Your task to perform on an android device: Open location settings Image 0: 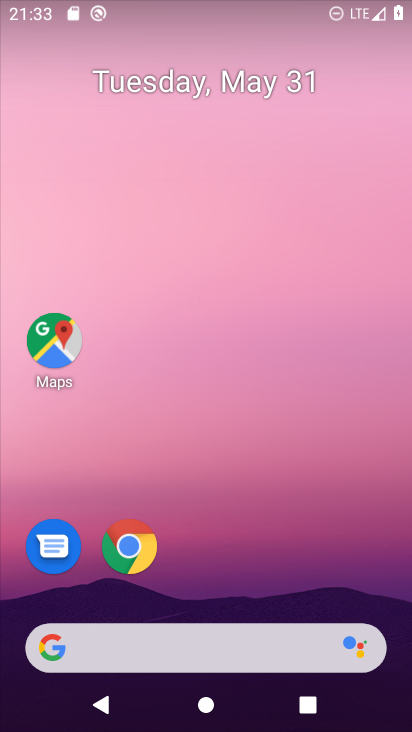
Step 0: drag from (385, 676) to (365, 114)
Your task to perform on an android device: Open location settings Image 1: 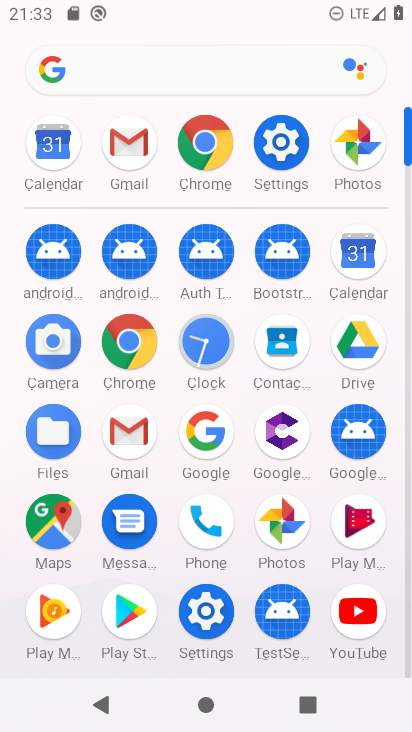
Step 1: click (269, 138)
Your task to perform on an android device: Open location settings Image 2: 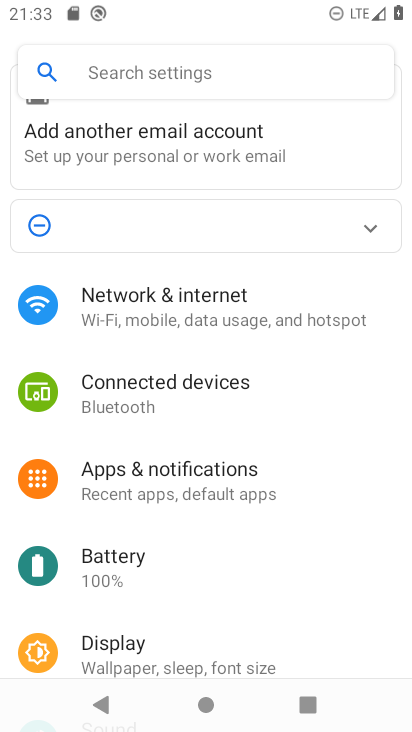
Step 2: drag from (229, 611) to (251, 227)
Your task to perform on an android device: Open location settings Image 3: 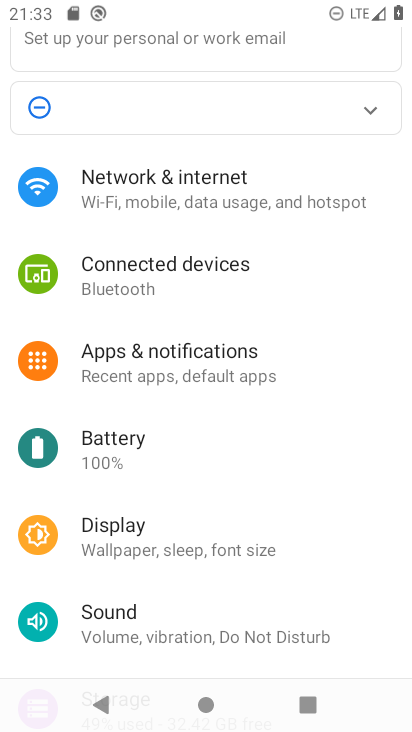
Step 3: drag from (256, 573) to (257, 204)
Your task to perform on an android device: Open location settings Image 4: 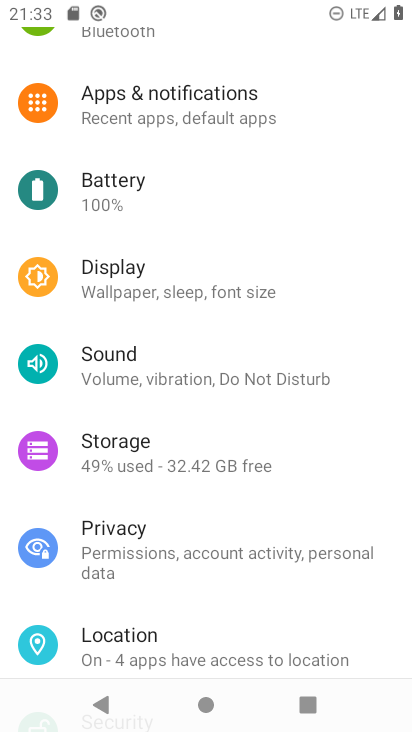
Step 4: click (86, 641)
Your task to perform on an android device: Open location settings Image 5: 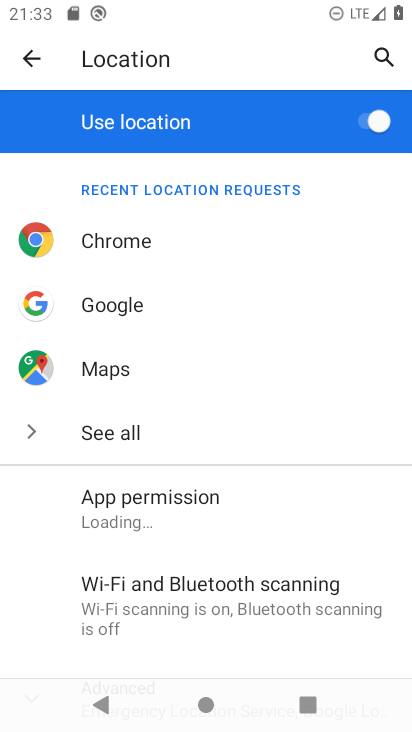
Step 5: drag from (296, 645) to (301, 268)
Your task to perform on an android device: Open location settings Image 6: 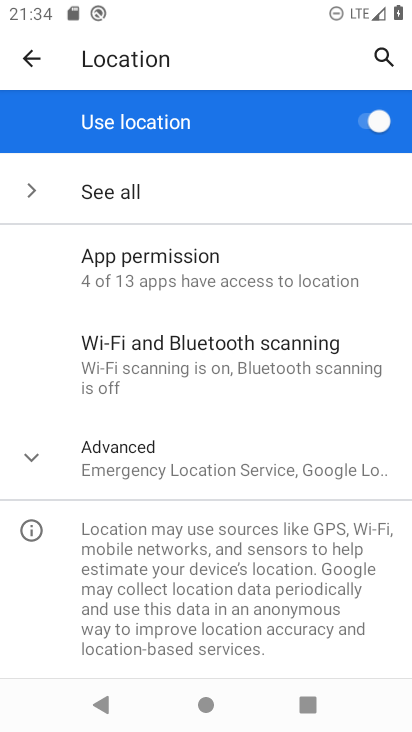
Step 6: click (40, 460)
Your task to perform on an android device: Open location settings Image 7: 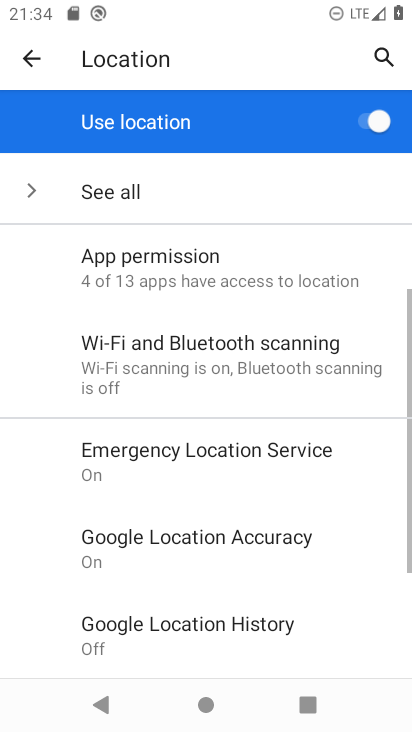
Step 7: task complete